Your task to perform on an android device: Open ESPN.com Image 0: 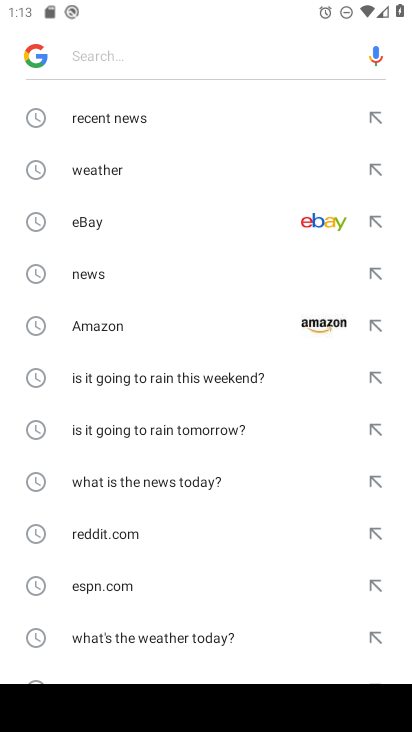
Step 0: press home button
Your task to perform on an android device: Open ESPN.com Image 1: 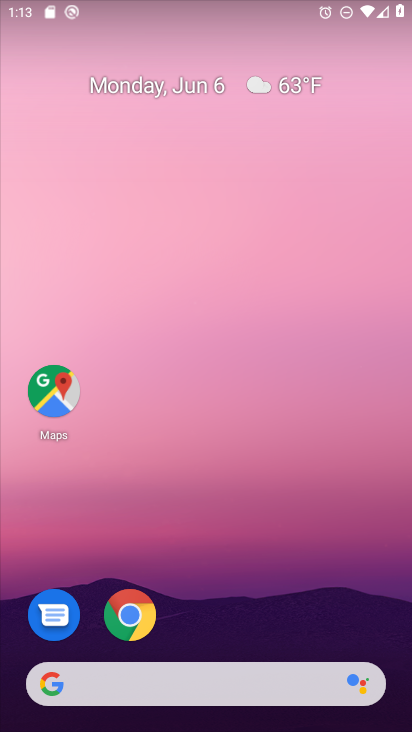
Step 1: click (132, 615)
Your task to perform on an android device: Open ESPN.com Image 2: 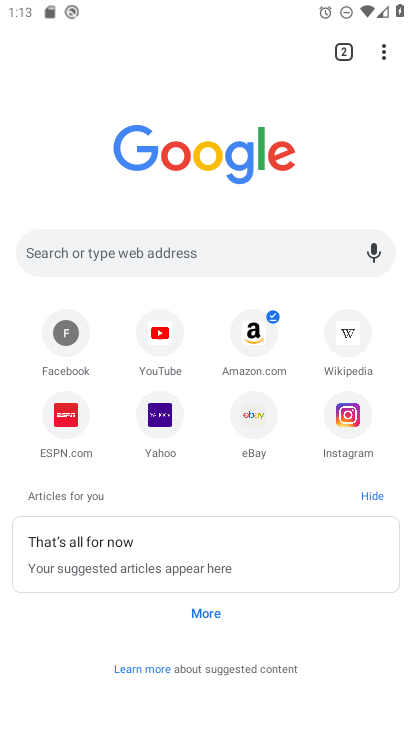
Step 2: click (63, 405)
Your task to perform on an android device: Open ESPN.com Image 3: 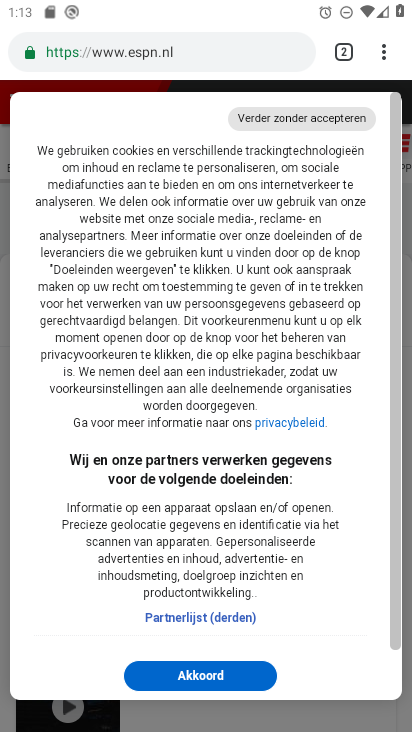
Step 3: task complete